Your task to perform on an android device: manage bookmarks in the chrome app Image 0: 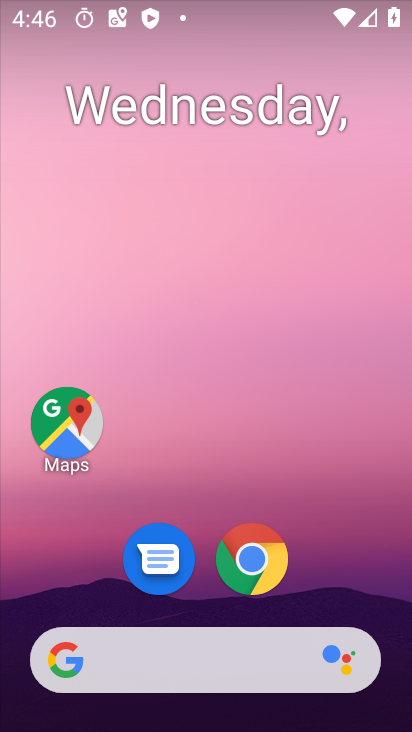
Step 0: click (278, 566)
Your task to perform on an android device: manage bookmarks in the chrome app Image 1: 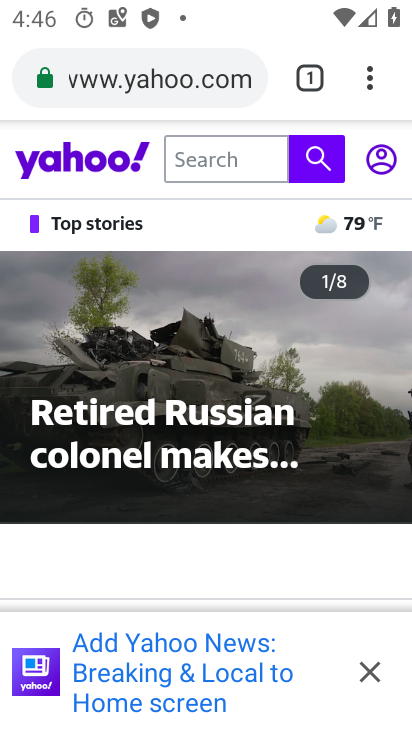
Step 1: click (372, 78)
Your task to perform on an android device: manage bookmarks in the chrome app Image 2: 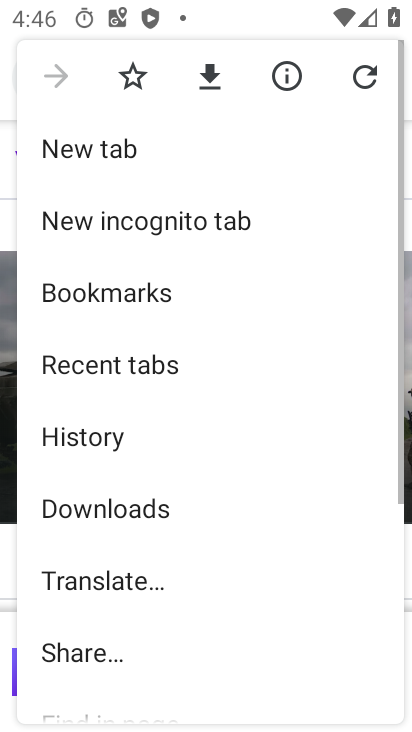
Step 2: click (138, 295)
Your task to perform on an android device: manage bookmarks in the chrome app Image 3: 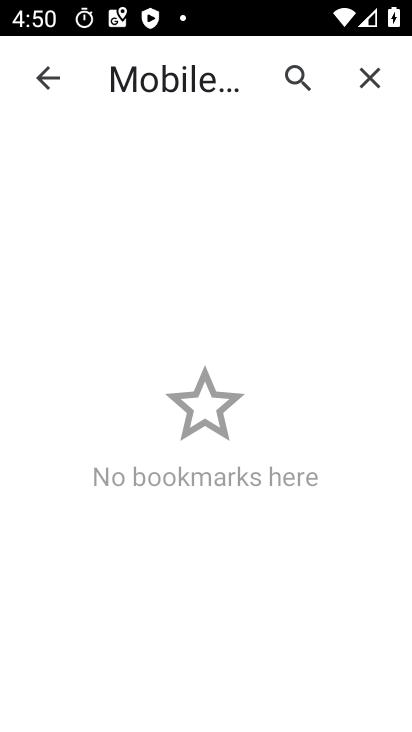
Step 3: task complete